Your task to perform on an android device: turn pop-ups off in chrome Image 0: 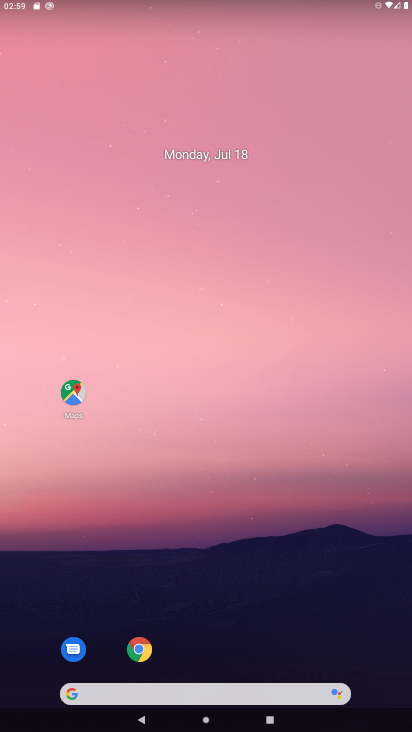
Step 0: click (138, 642)
Your task to perform on an android device: turn pop-ups off in chrome Image 1: 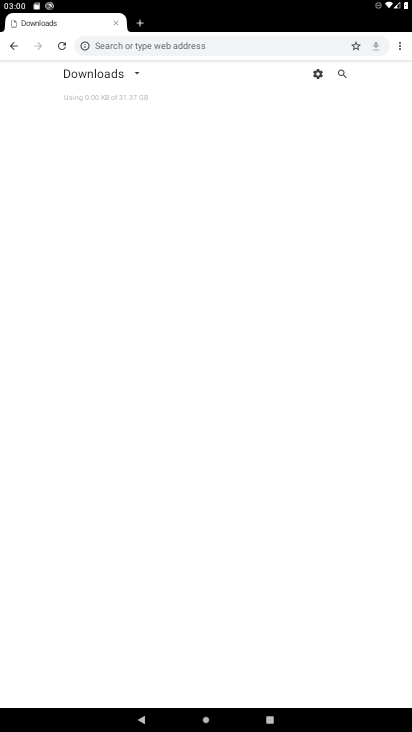
Step 1: click (339, 317)
Your task to perform on an android device: turn pop-ups off in chrome Image 2: 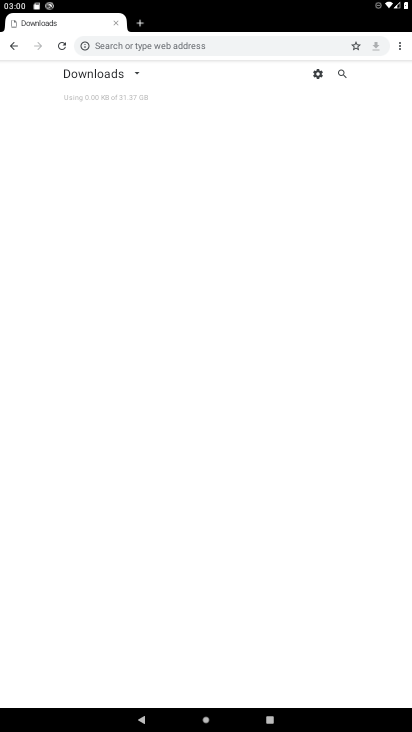
Step 2: click (398, 47)
Your task to perform on an android device: turn pop-ups off in chrome Image 3: 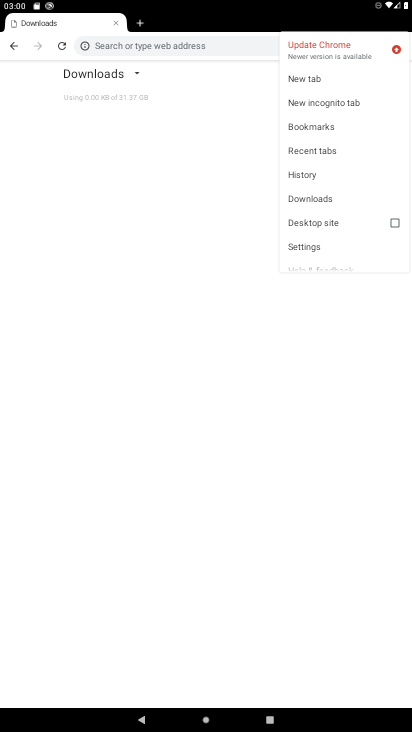
Step 3: click (323, 240)
Your task to perform on an android device: turn pop-ups off in chrome Image 4: 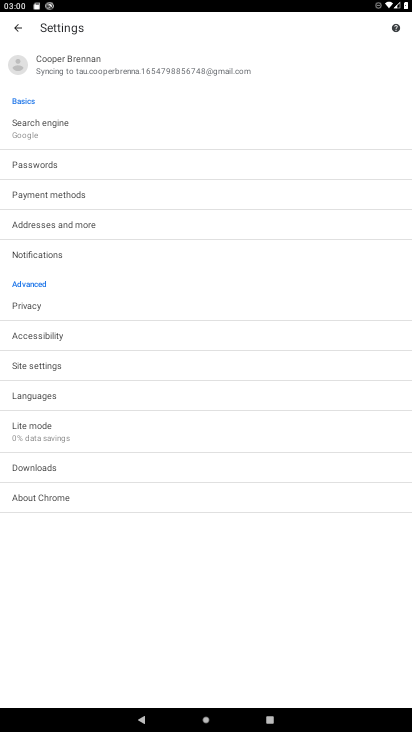
Step 4: click (69, 365)
Your task to perform on an android device: turn pop-ups off in chrome Image 5: 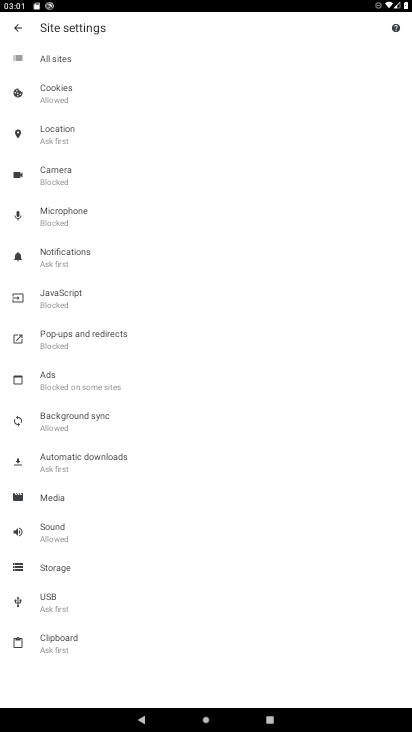
Step 5: click (99, 337)
Your task to perform on an android device: turn pop-ups off in chrome Image 6: 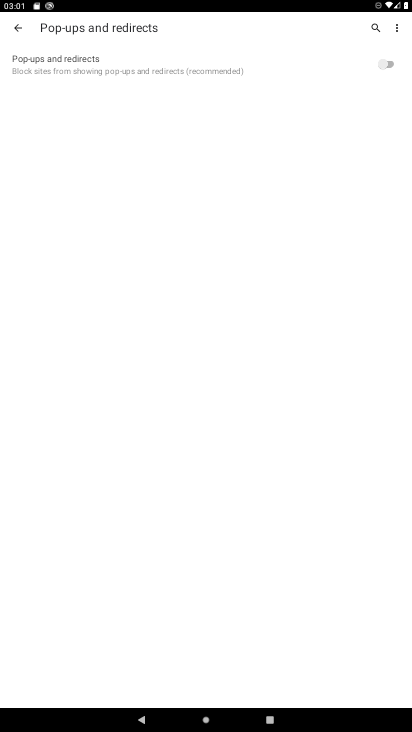
Step 6: task complete